Your task to perform on an android device: Open the calendar and show me this week's events? Image 0: 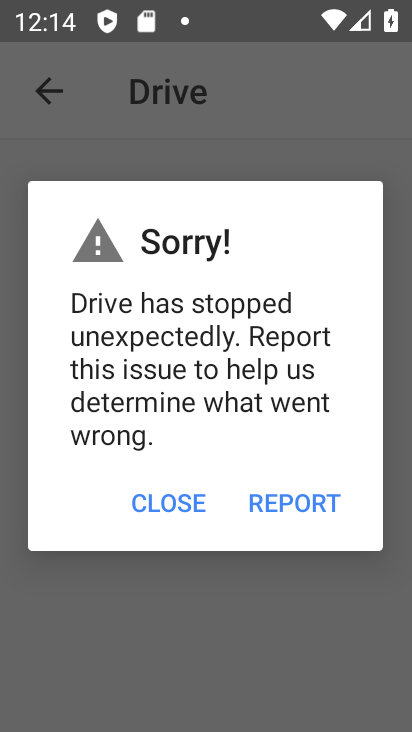
Step 0: click (185, 498)
Your task to perform on an android device: Open the calendar and show me this week's events? Image 1: 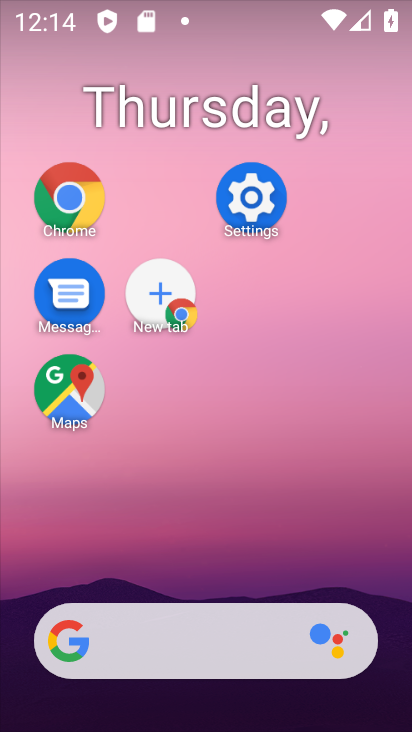
Step 1: drag from (211, 636) to (9, 199)
Your task to perform on an android device: Open the calendar and show me this week's events? Image 2: 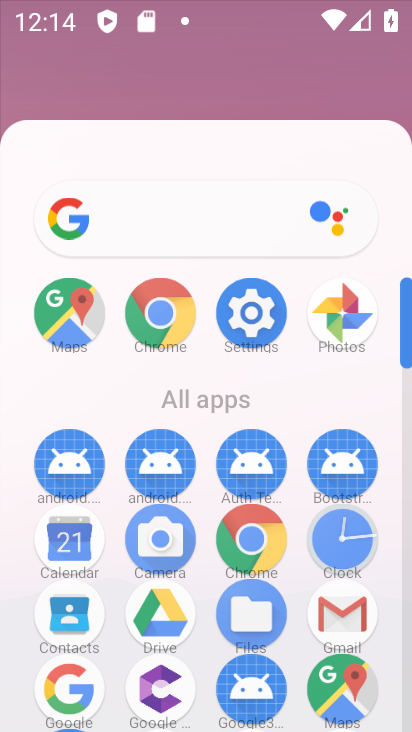
Step 2: drag from (211, 597) to (107, 1)
Your task to perform on an android device: Open the calendar and show me this week's events? Image 3: 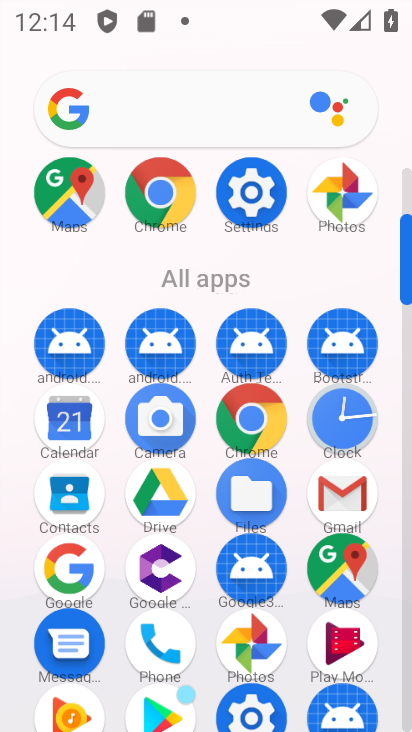
Step 3: click (68, 413)
Your task to perform on an android device: Open the calendar and show me this week's events? Image 4: 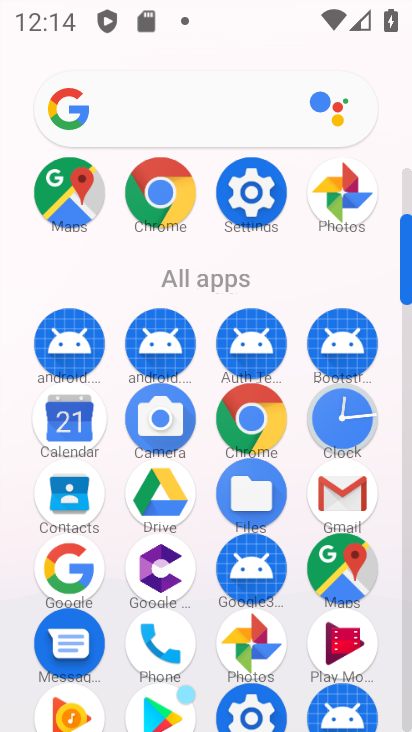
Step 4: click (69, 412)
Your task to perform on an android device: Open the calendar and show me this week's events? Image 5: 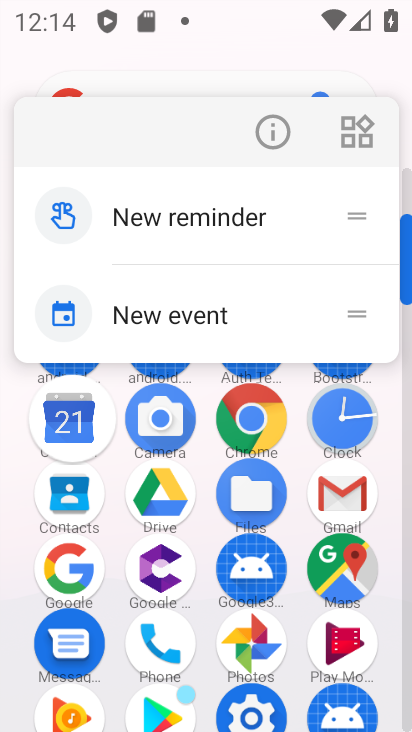
Step 5: drag from (73, 412) to (59, 485)
Your task to perform on an android device: Open the calendar and show me this week's events? Image 6: 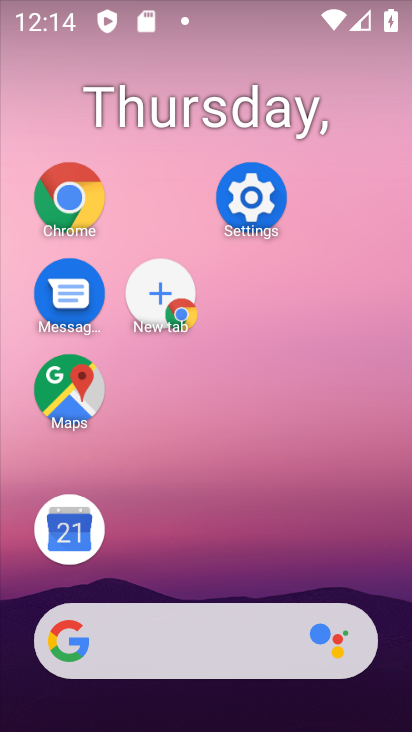
Step 6: click (59, 485)
Your task to perform on an android device: Open the calendar and show me this week's events? Image 7: 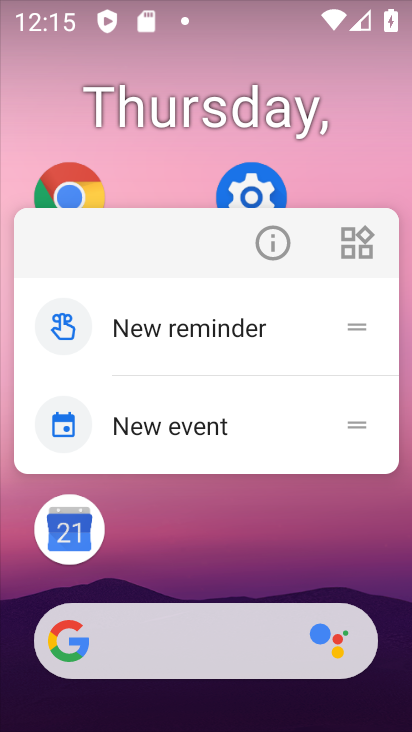
Step 7: drag from (193, 713) to (3, 323)
Your task to perform on an android device: Open the calendar and show me this week's events? Image 8: 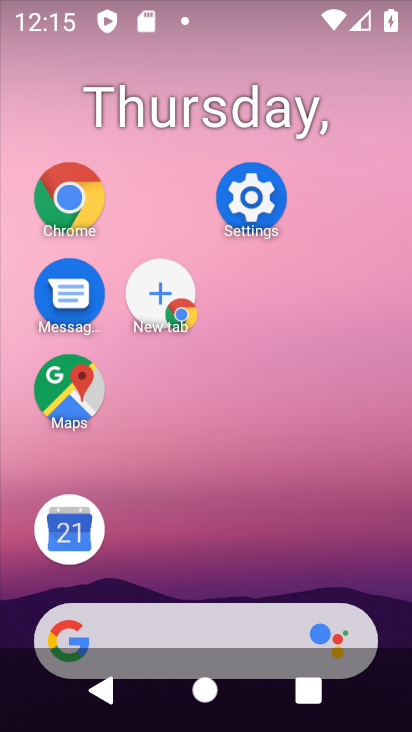
Step 8: drag from (244, 562) to (243, 112)
Your task to perform on an android device: Open the calendar and show me this week's events? Image 9: 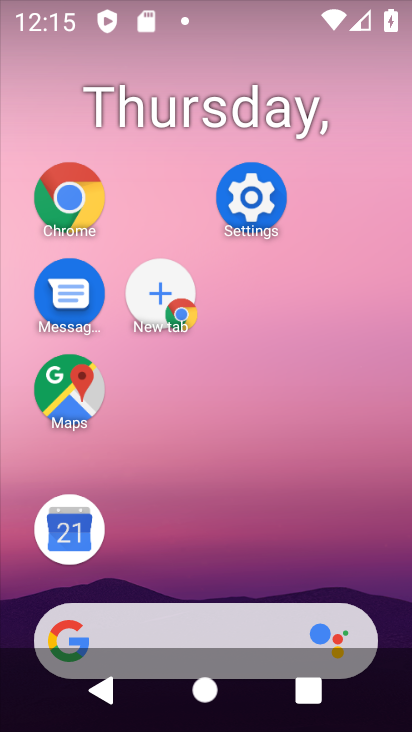
Step 9: drag from (231, 538) to (163, 158)
Your task to perform on an android device: Open the calendar and show me this week's events? Image 10: 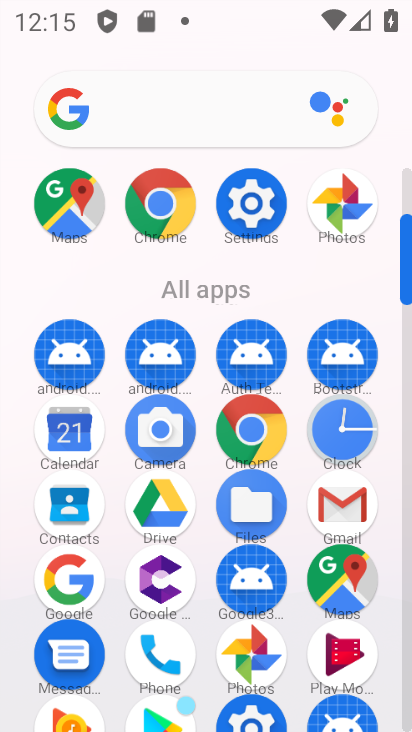
Step 10: drag from (232, 377) to (202, 189)
Your task to perform on an android device: Open the calendar and show me this week's events? Image 11: 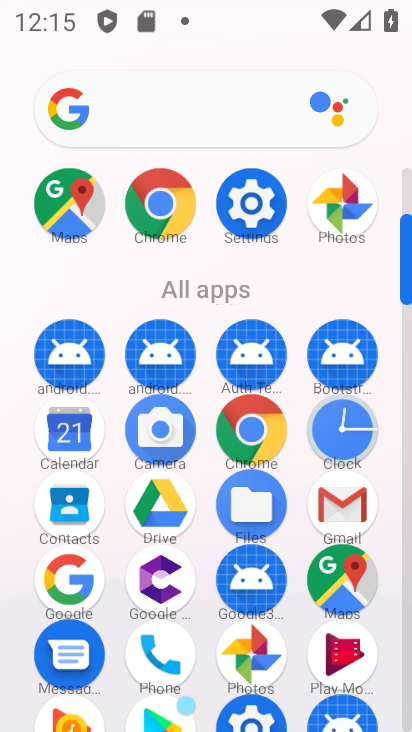
Step 11: click (64, 453)
Your task to perform on an android device: Open the calendar and show me this week's events? Image 12: 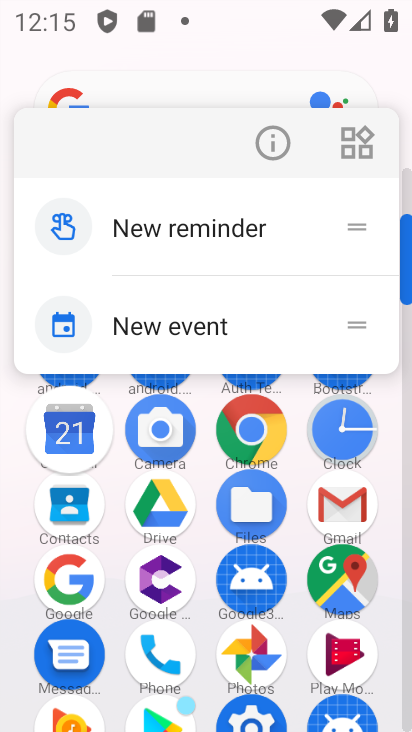
Step 12: click (65, 435)
Your task to perform on an android device: Open the calendar and show me this week's events? Image 13: 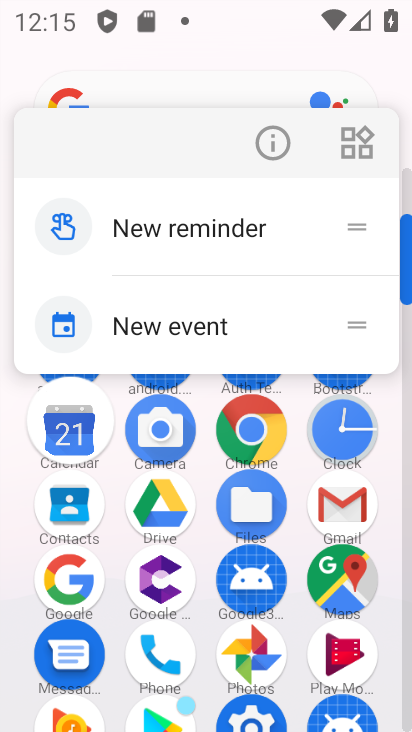
Step 13: click (67, 425)
Your task to perform on an android device: Open the calendar and show me this week's events? Image 14: 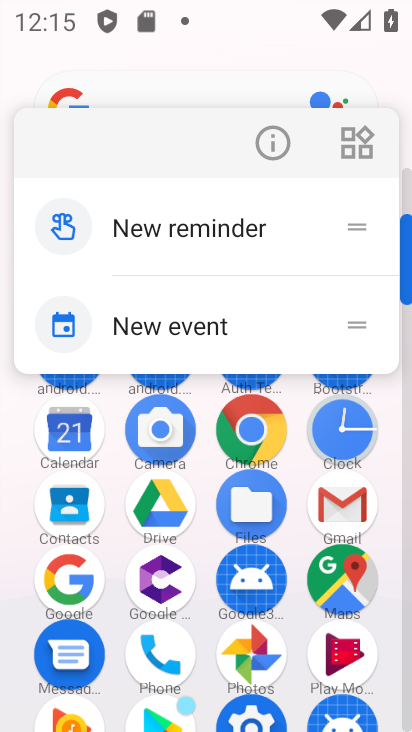
Step 14: click (67, 425)
Your task to perform on an android device: Open the calendar and show me this week's events? Image 15: 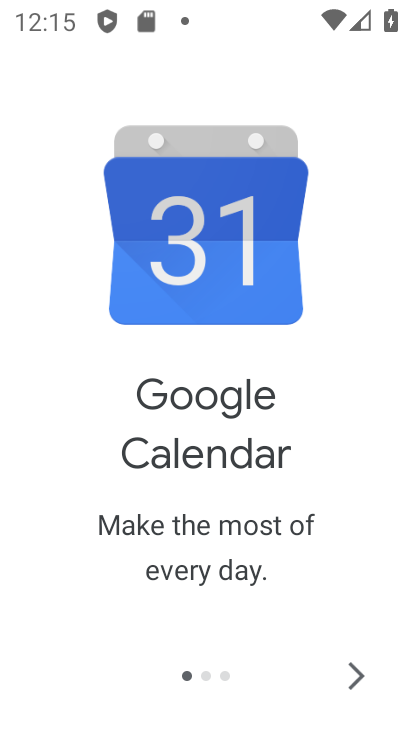
Step 15: click (354, 669)
Your task to perform on an android device: Open the calendar and show me this week's events? Image 16: 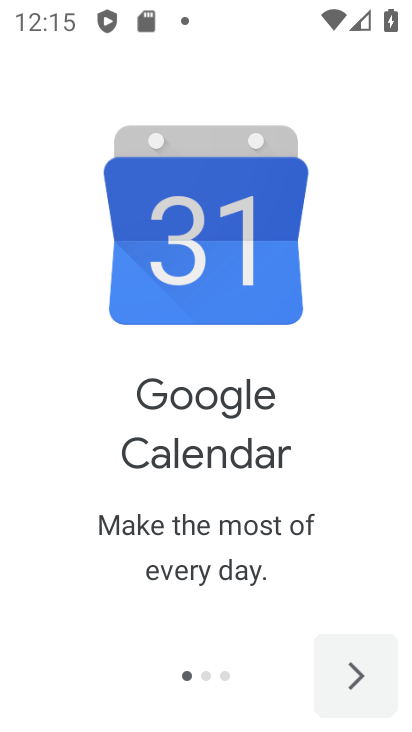
Step 16: click (354, 669)
Your task to perform on an android device: Open the calendar and show me this week's events? Image 17: 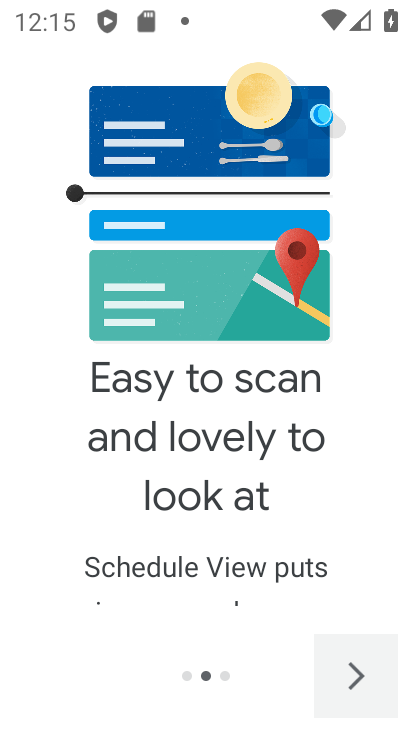
Step 17: click (354, 669)
Your task to perform on an android device: Open the calendar and show me this week's events? Image 18: 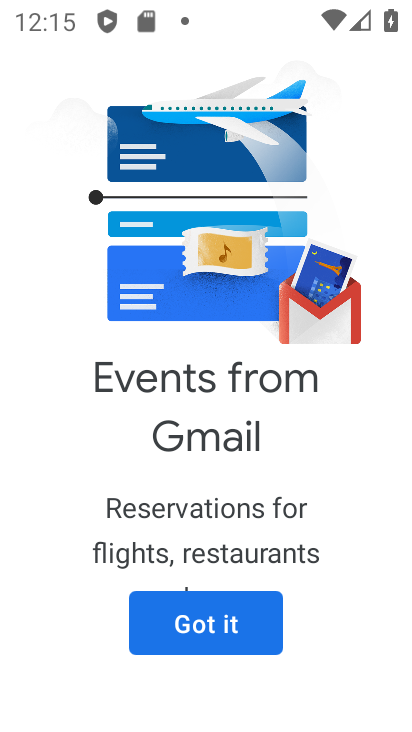
Step 18: click (229, 638)
Your task to perform on an android device: Open the calendar and show me this week's events? Image 19: 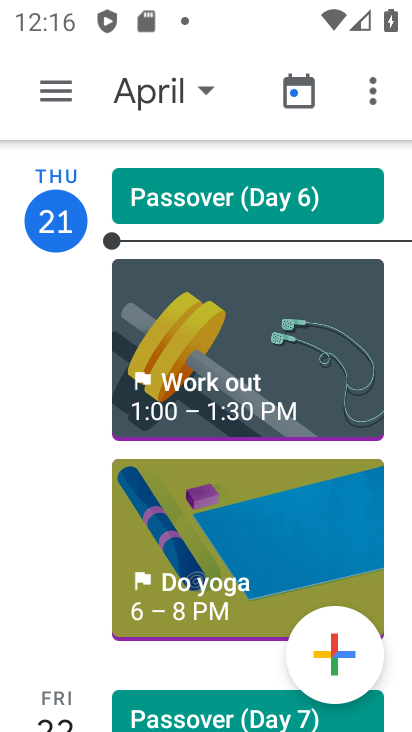
Step 19: drag from (185, 595) to (140, 212)
Your task to perform on an android device: Open the calendar and show me this week's events? Image 20: 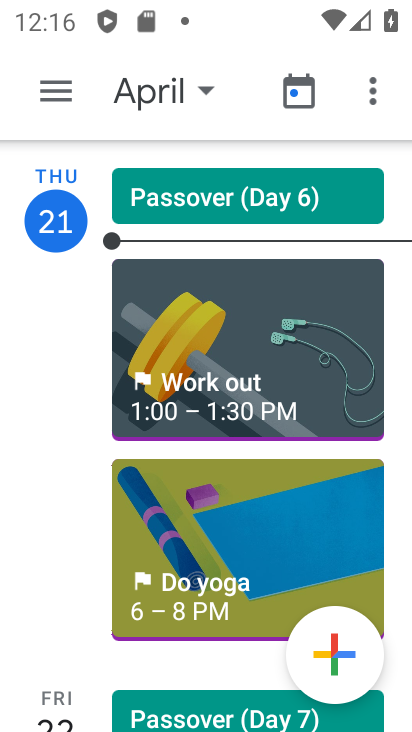
Step 20: drag from (233, 303) to (226, 250)
Your task to perform on an android device: Open the calendar and show me this week's events? Image 21: 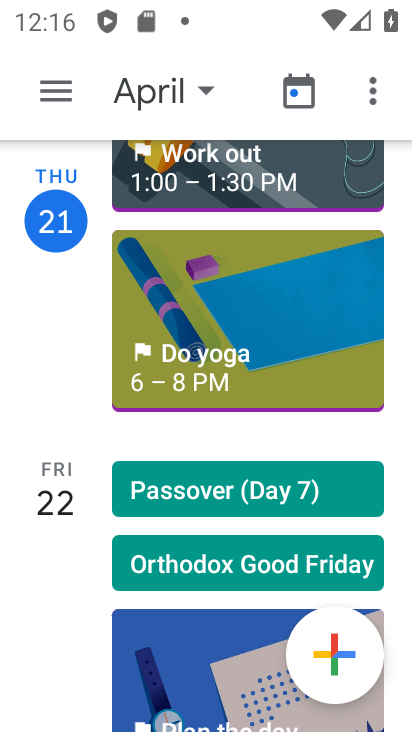
Step 21: drag from (156, 411) to (156, 289)
Your task to perform on an android device: Open the calendar and show me this week's events? Image 22: 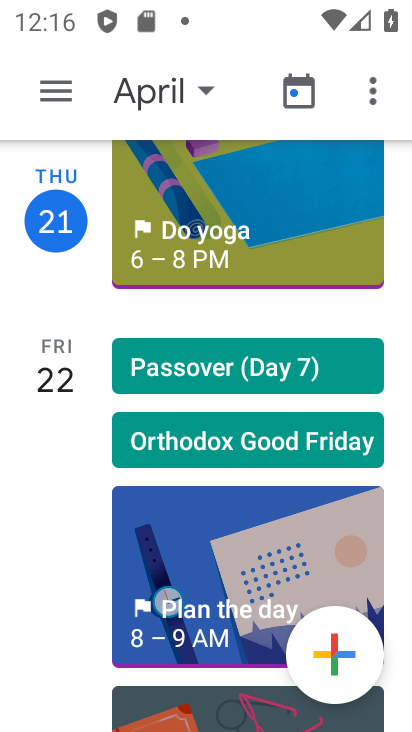
Step 22: drag from (212, 570) to (226, 251)
Your task to perform on an android device: Open the calendar and show me this week's events? Image 23: 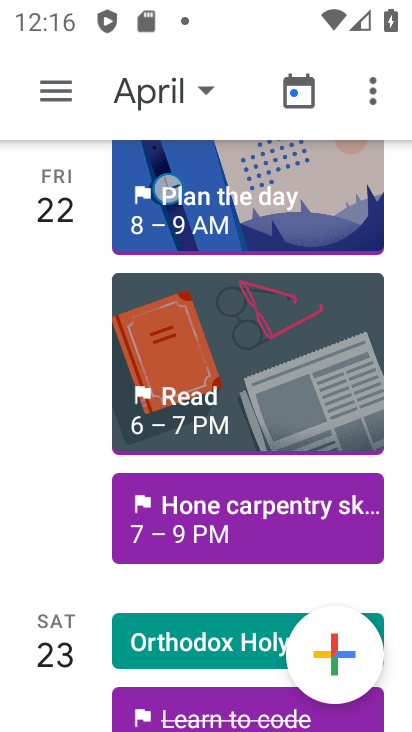
Step 23: drag from (225, 513) to (205, 320)
Your task to perform on an android device: Open the calendar and show me this week's events? Image 24: 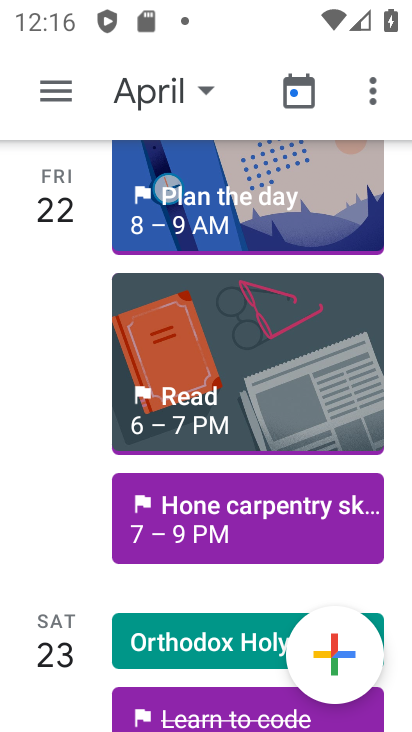
Step 24: drag from (200, 454) to (167, 246)
Your task to perform on an android device: Open the calendar and show me this week's events? Image 25: 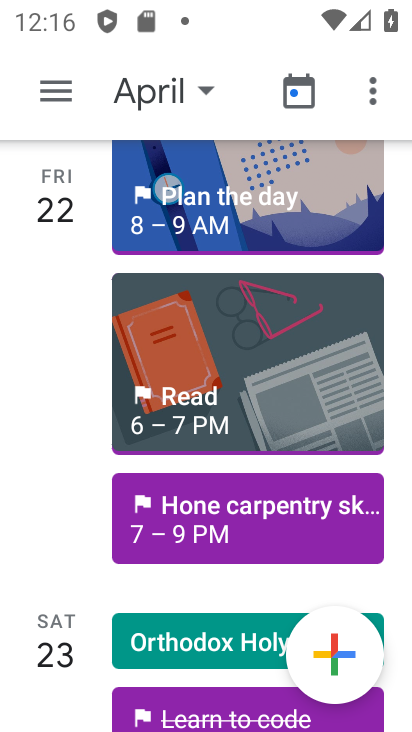
Step 25: drag from (197, 556) to (165, 301)
Your task to perform on an android device: Open the calendar and show me this week's events? Image 26: 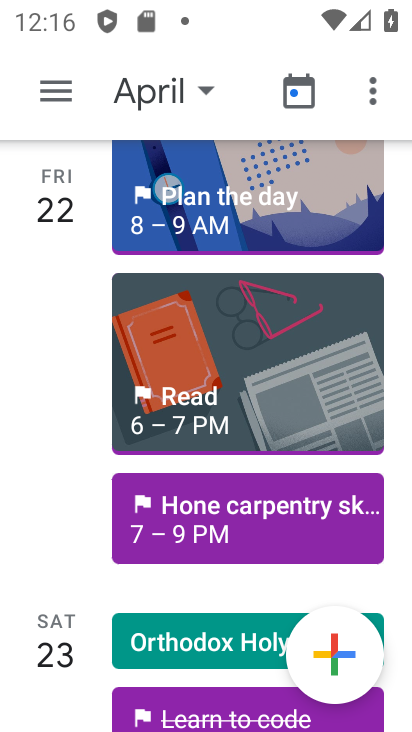
Step 26: drag from (193, 498) to (176, 223)
Your task to perform on an android device: Open the calendar and show me this week's events? Image 27: 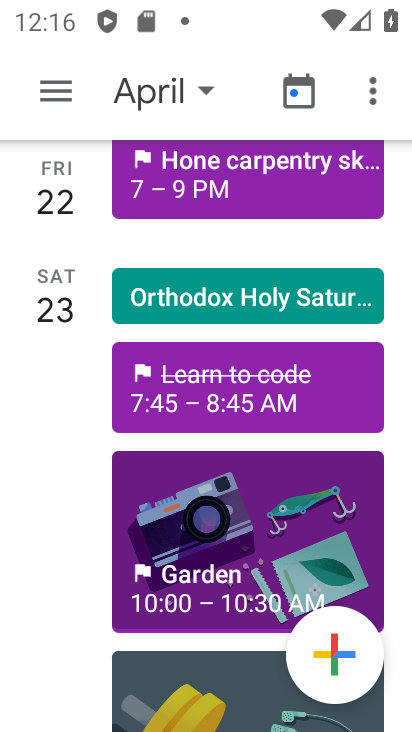
Step 27: click (219, 306)
Your task to perform on an android device: Open the calendar and show me this week's events? Image 28: 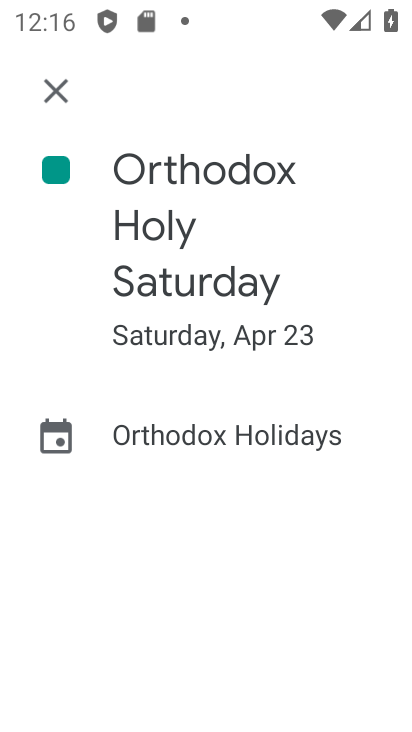
Step 28: drag from (218, 469) to (151, 254)
Your task to perform on an android device: Open the calendar and show me this week's events? Image 29: 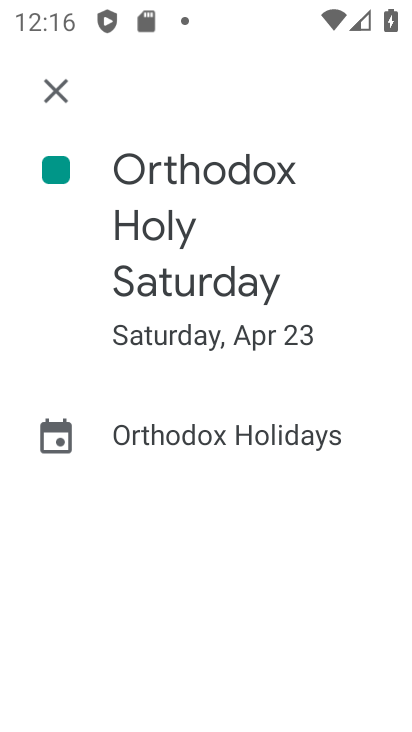
Step 29: click (51, 97)
Your task to perform on an android device: Open the calendar and show me this week's events? Image 30: 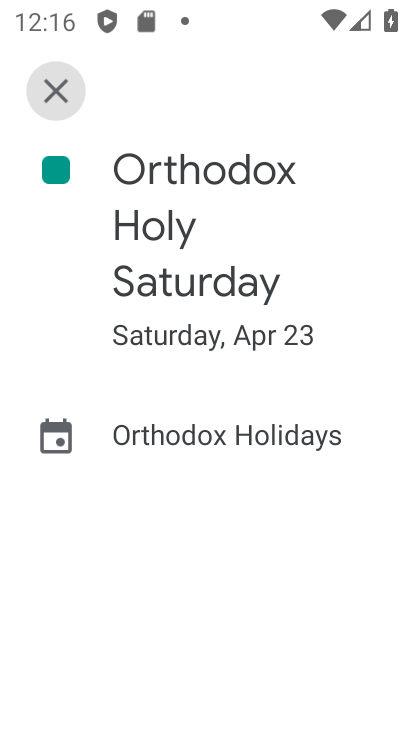
Step 30: click (51, 97)
Your task to perform on an android device: Open the calendar and show me this week's events? Image 31: 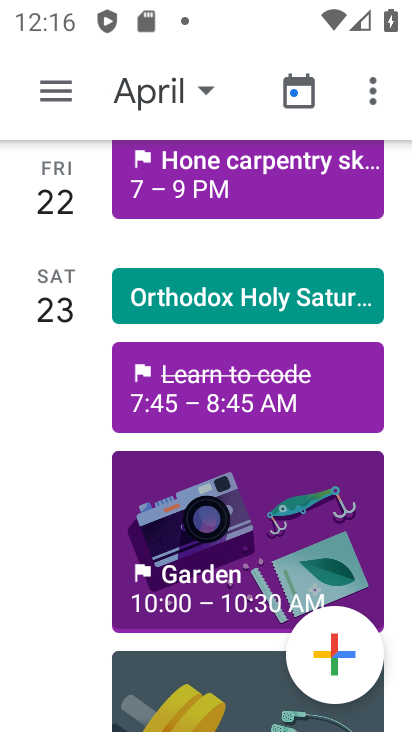
Step 31: task complete